Your task to perform on an android device: set an alarm Image 0: 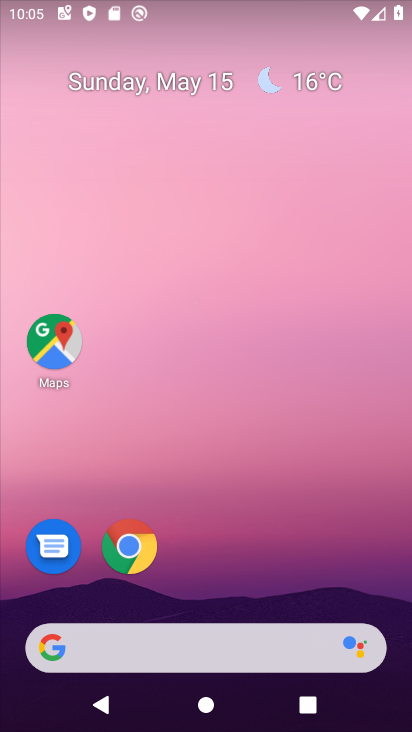
Step 0: drag from (252, 555) to (235, 314)
Your task to perform on an android device: set an alarm Image 1: 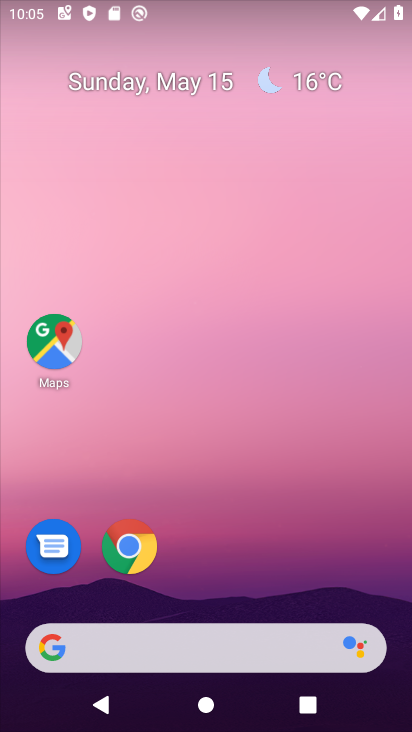
Step 1: drag from (245, 498) to (260, 67)
Your task to perform on an android device: set an alarm Image 2: 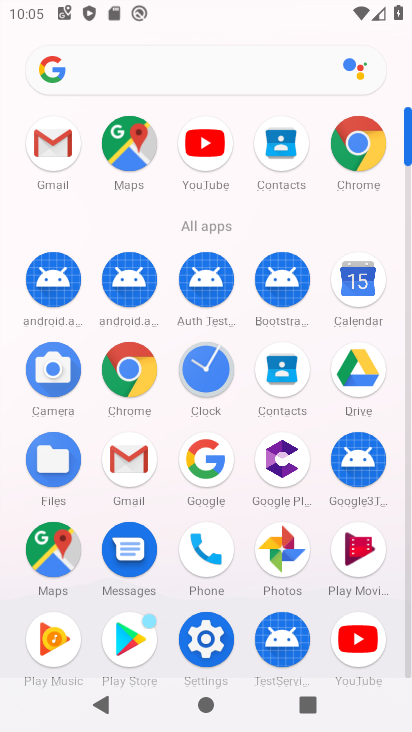
Step 2: click (198, 371)
Your task to perform on an android device: set an alarm Image 3: 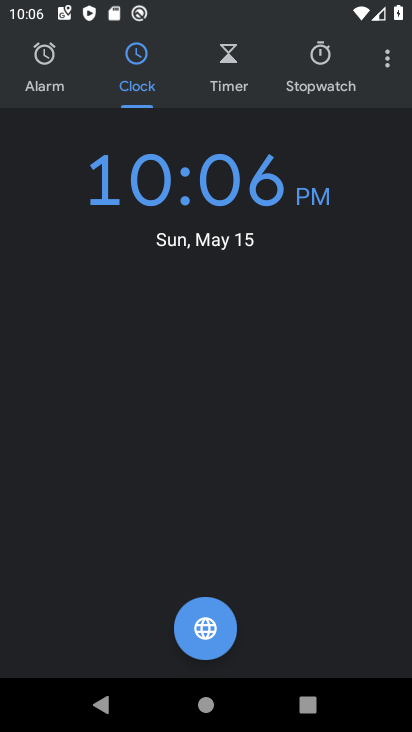
Step 3: click (44, 72)
Your task to perform on an android device: set an alarm Image 4: 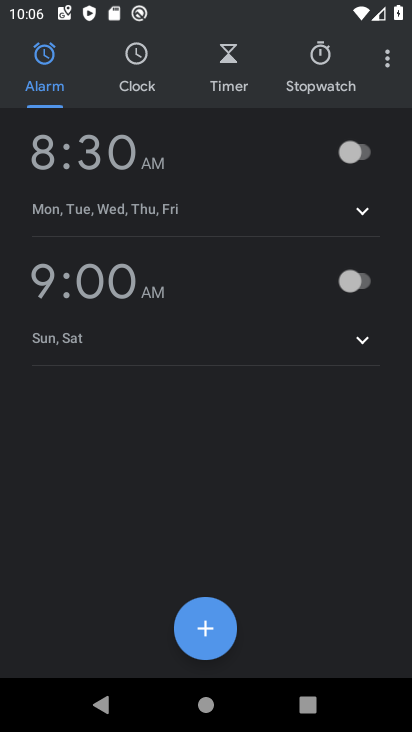
Step 4: click (343, 155)
Your task to perform on an android device: set an alarm Image 5: 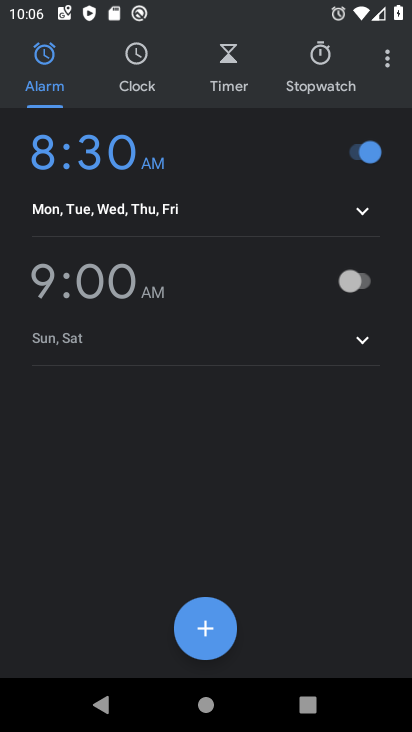
Step 5: task complete